Your task to perform on an android device: check storage Image 0: 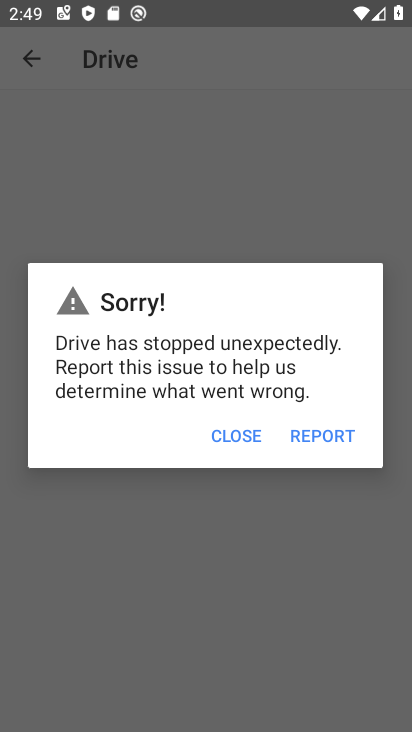
Step 0: press home button
Your task to perform on an android device: check storage Image 1: 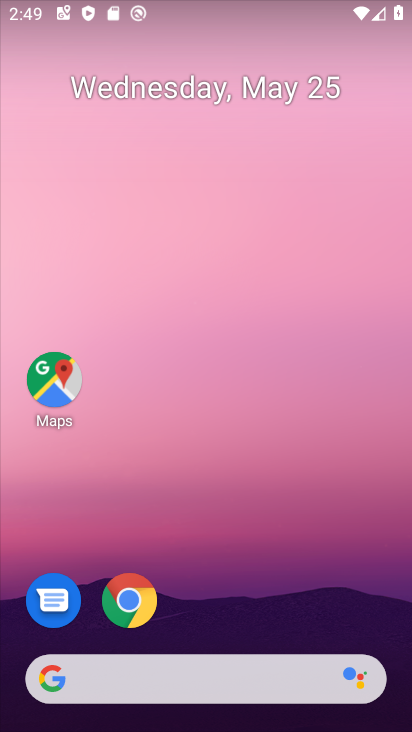
Step 1: drag from (16, 603) to (238, 120)
Your task to perform on an android device: check storage Image 2: 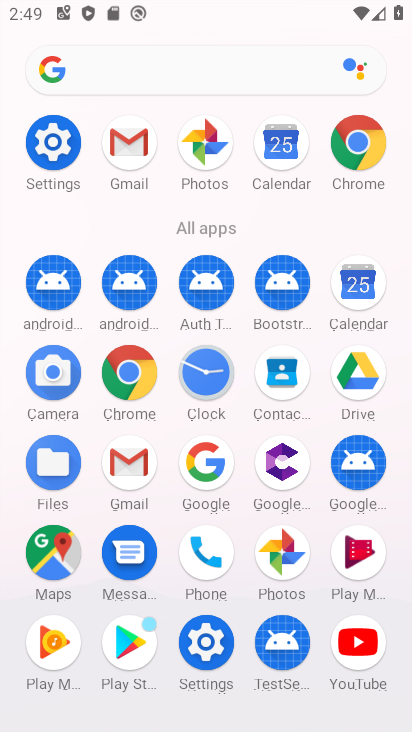
Step 2: click (53, 144)
Your task to perform on an android device: check storage Image 3: 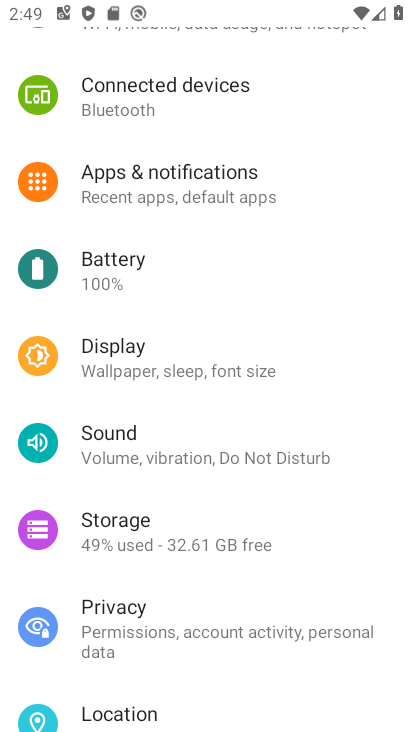
Step 3: click (140, 532)
Your task to perform on an android device: check storage Image 4: 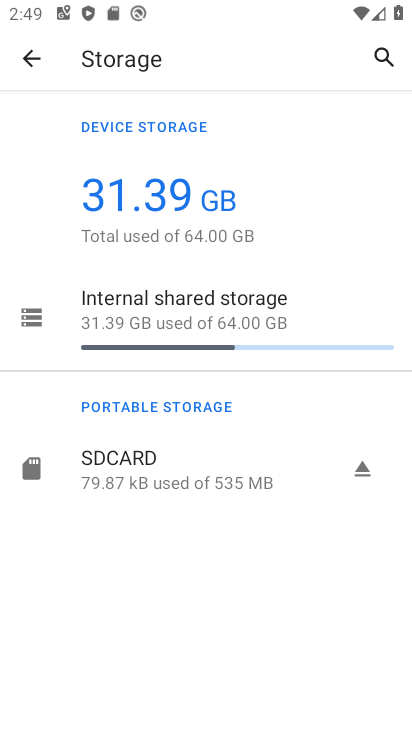
Step 4: task complete